Your task to perform on an android device: check storage Image 0: 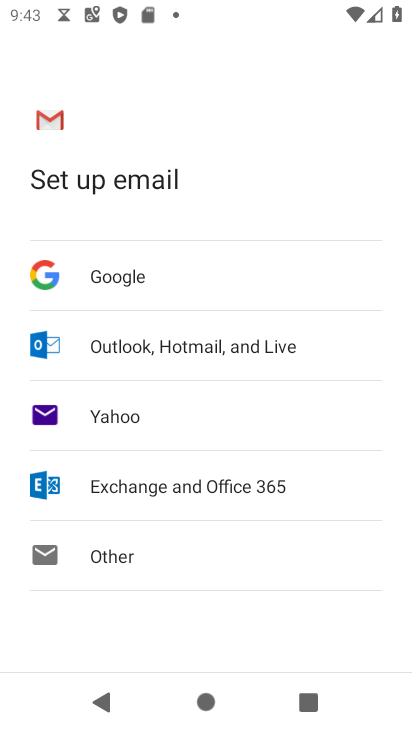
Step 0: press home button
Your task to perform on an android device: check storage Image 1: 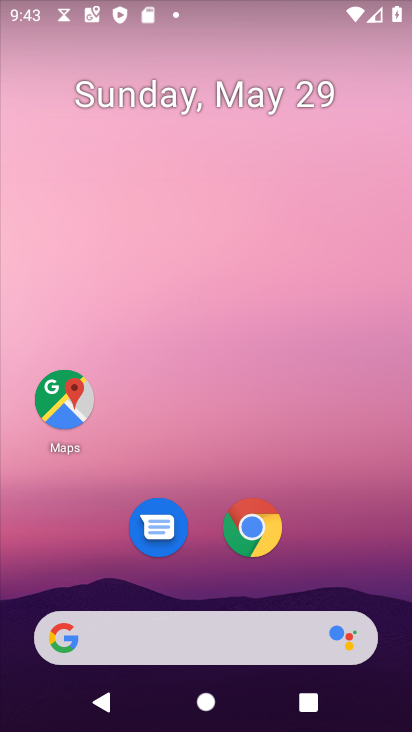
Step 1: drag from (162, 649) to (312, 63)
Your task to perform on an android device: check storage Image 2: 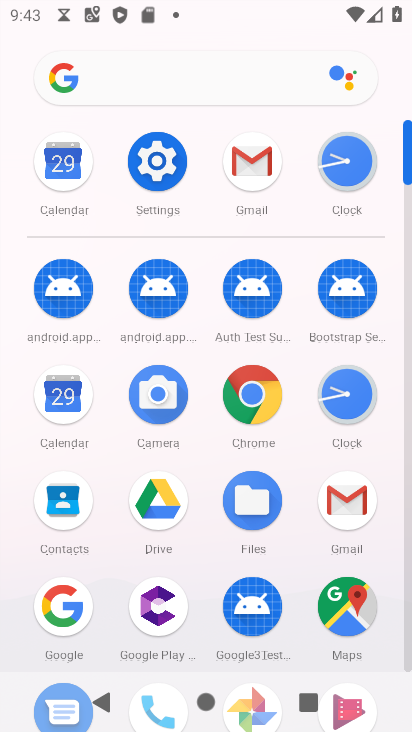
Step 2: click (162, 167)
Your task to perform on an android device: check storage Image 3: 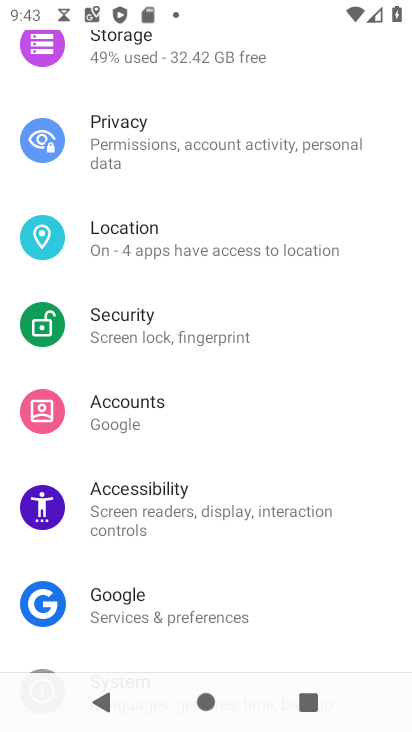
Step 3: click (116, 50)
Your task to perform on an android device: check storage Image 4: 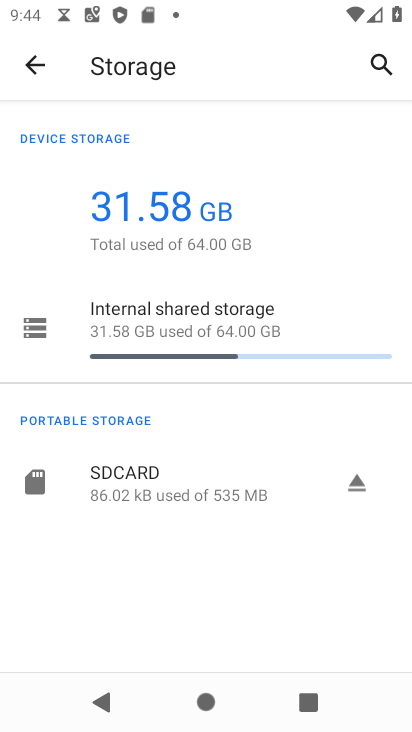
Step 4: task complete